Your task to perform on an android device: find which apps use the phone's location Image 0: 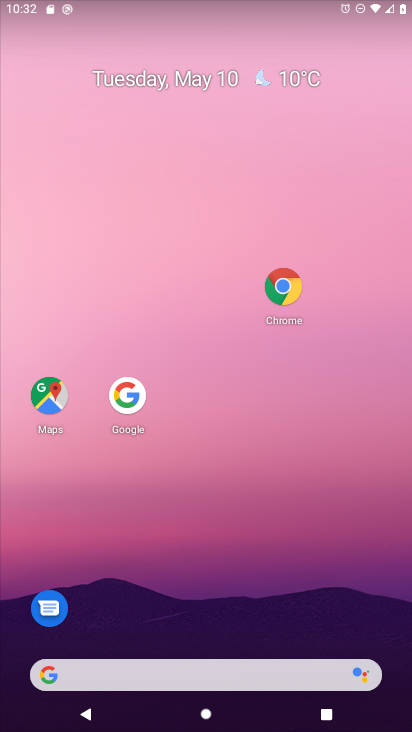
Step 0: drag from (161, 659) to (352, 97)
Your task to perform on an android device: find which apps use the phone's location Image 1: 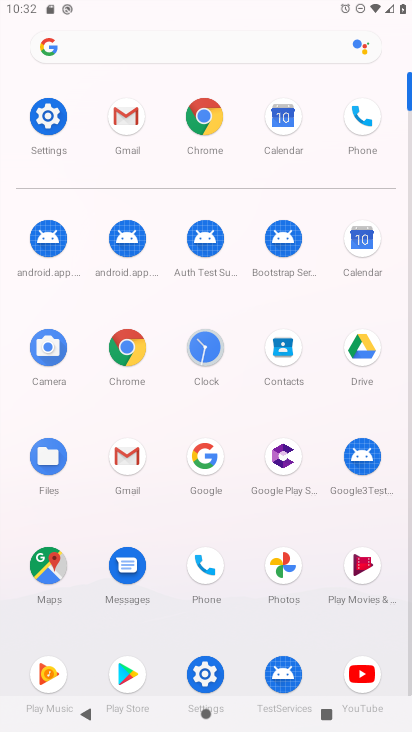
Step 1: click (51, 128)
Your task to perform on an android device: find which apps use the phone's location Image 2: 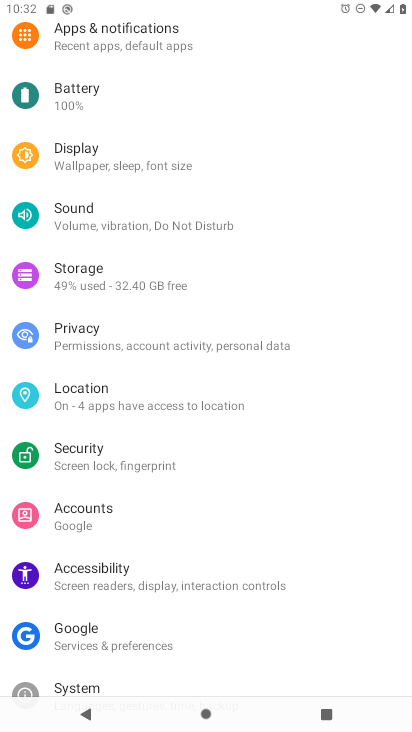
Step 2: click (113, 399)
Your task to perform on an android device: find which apps use the phone's location Image 3: 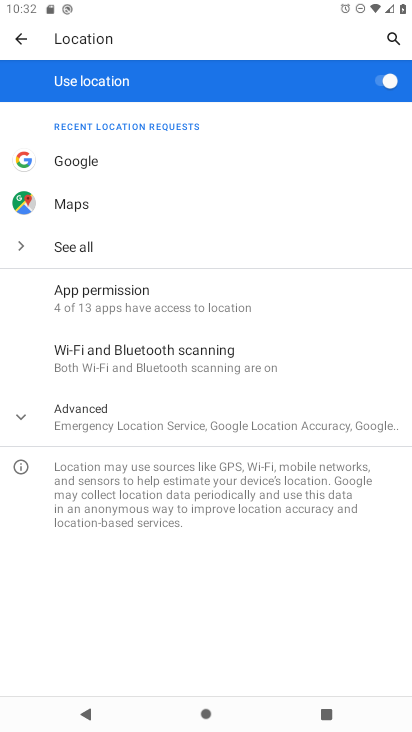
Step 3: click (102, 294)
Your task to perform on an android device: find which apps use the phone's location Image 4: 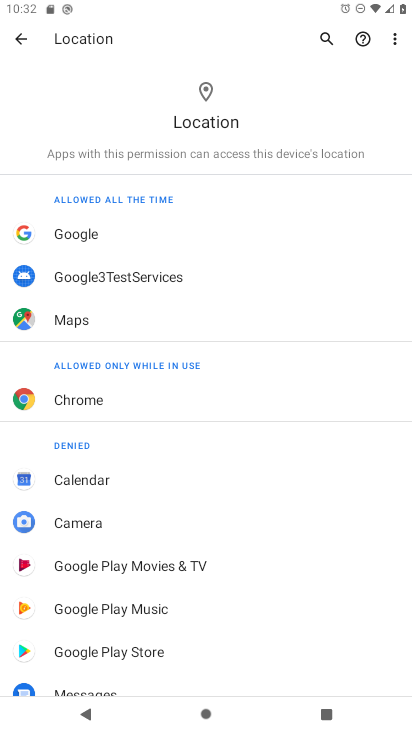
Step 4: drag from (231, 634) to (358, 327)
Your task to perform on an android device: find which apps use the phone's location Image 5: 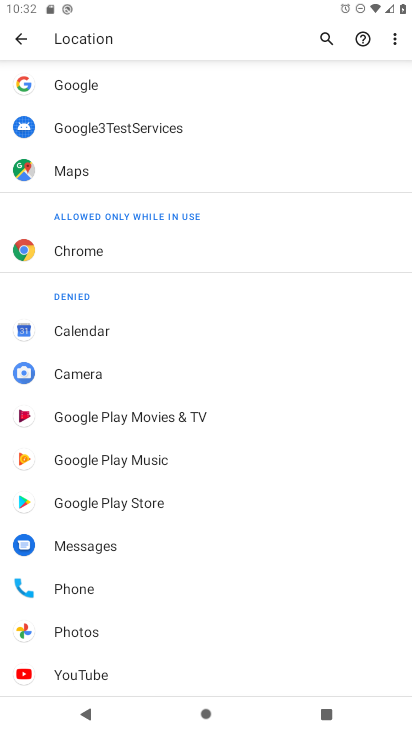
Step 5: click (78, 591)
Your task to perform on an android device: find which apps use the phone's location Image 6: 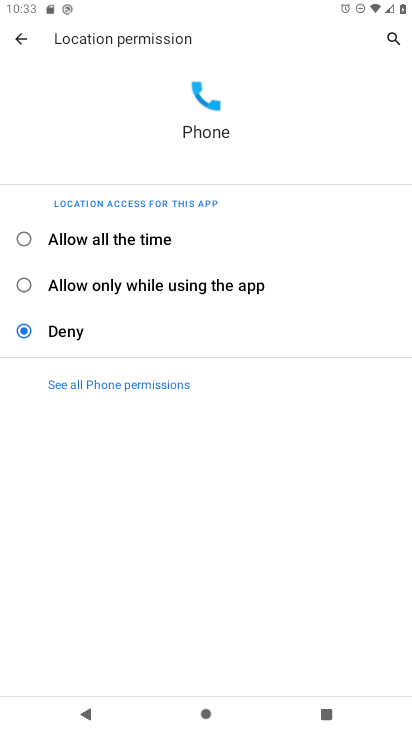
Step 6: task complete